Your task to perform on an android device: Open Chrome and go to settings Image 0: 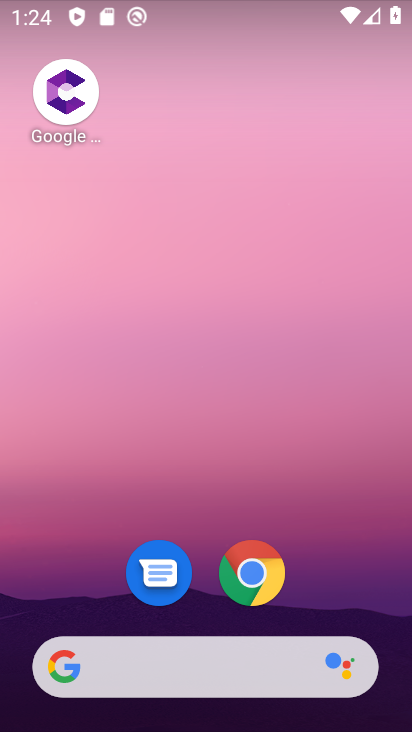
Step 0: click (261, 577)
Your task to perform on an android device: Open Chrome and go to settings Image 1: 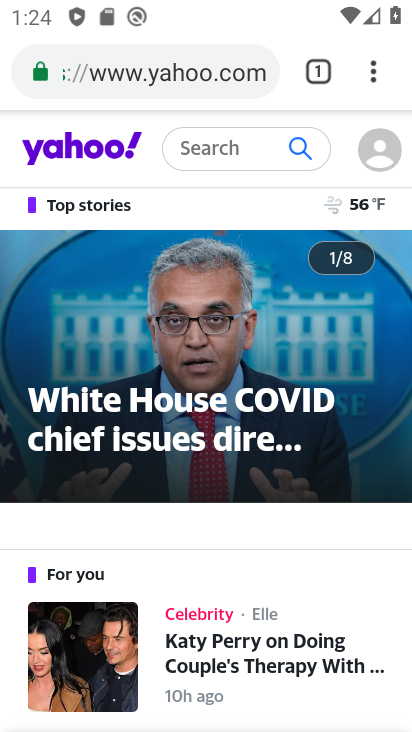
Step 1: click (372, 81)
Your task to perform on an android device: Open Chrome and go to settings Image 2: 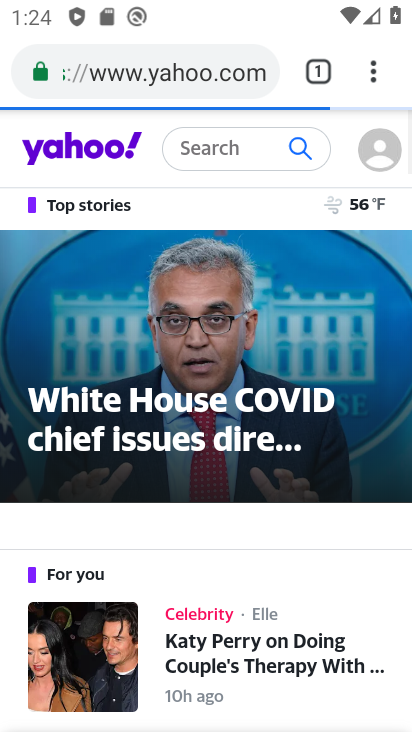
Step 2: click (379, 68)
Your task to perform on an android device: Open Chrome and go to settings Image 3: 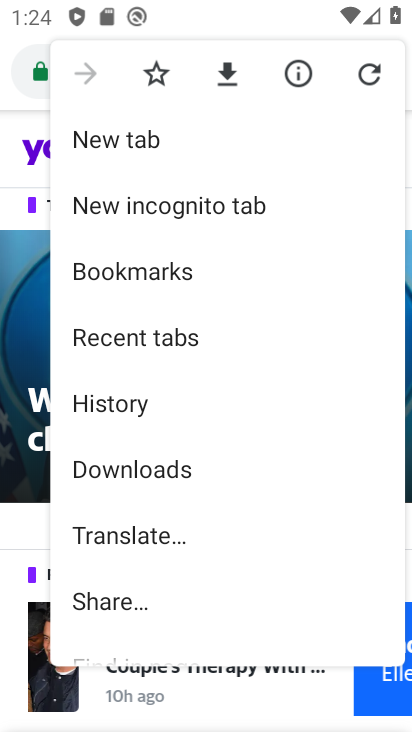
Step 3: drag from (146, 568) to (150, 35)
Your task to perform on an android device: Open Chrome and go to settings Image 4: 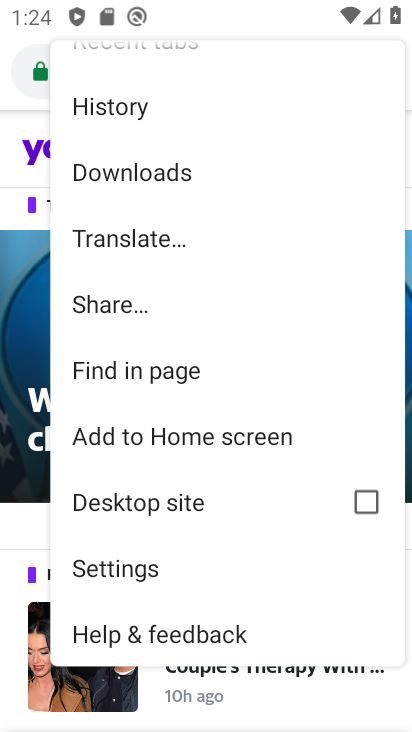
Step 4: click (113, 565)
Your task to perform on an android device: Open Chrome and go to settings Image 5: 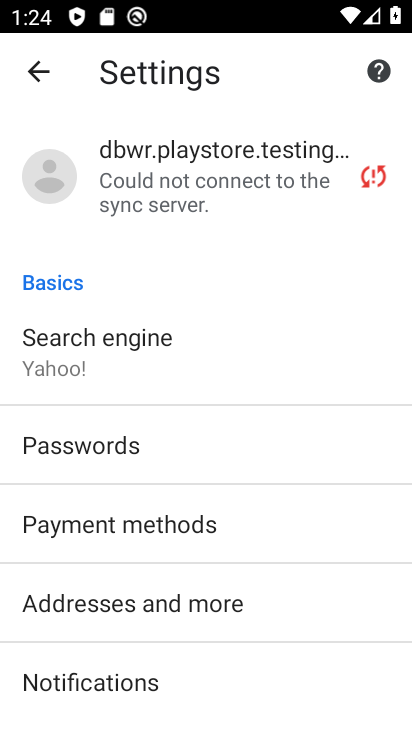
Step 5: task complete